Your task to perform on an android device: Open Yahoo.com Image 0: 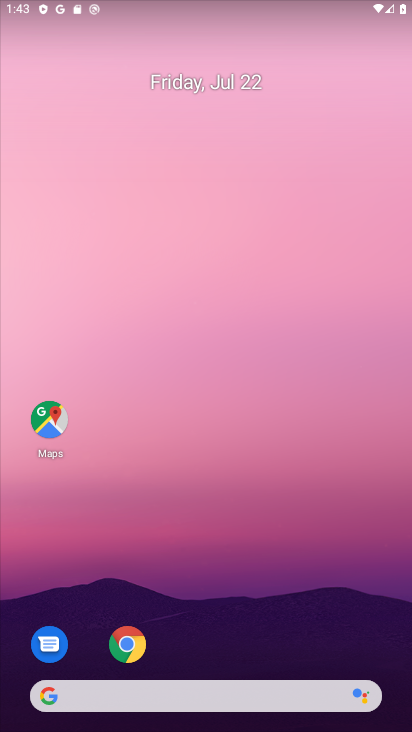
Step 0: click (116, 634)
Your task to perform on an android device: Open Yahoo.com Image 1: 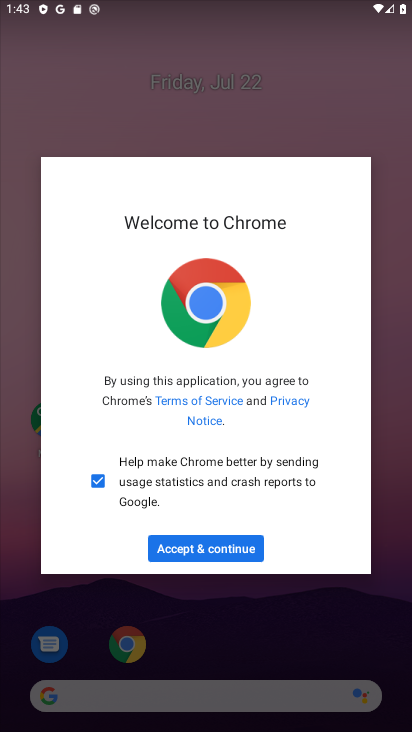
Step 1: click (206, 545)
Your task to perform on an android device: Open Yahoo.com Image 2: 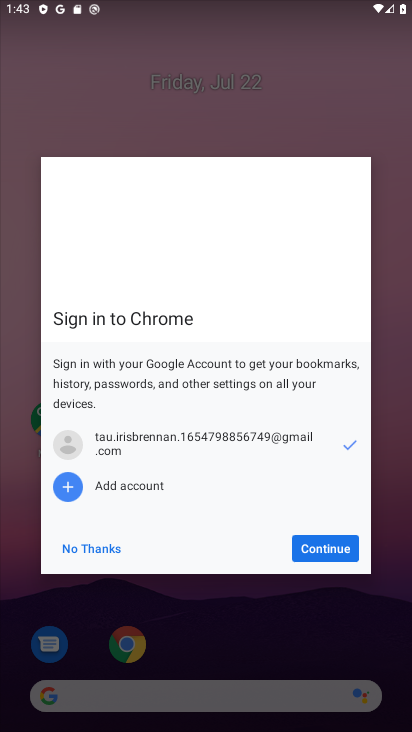
Step 2: click (345, 548)
Your task to perform on an android device: Open Yahoo.com Image 3: 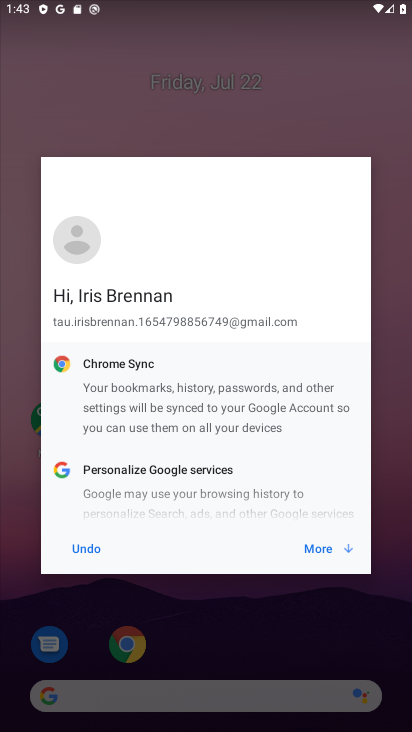
Step 3: click (345, 548)
Your task to perform on an android device: Open Yahoo.com Image 4: 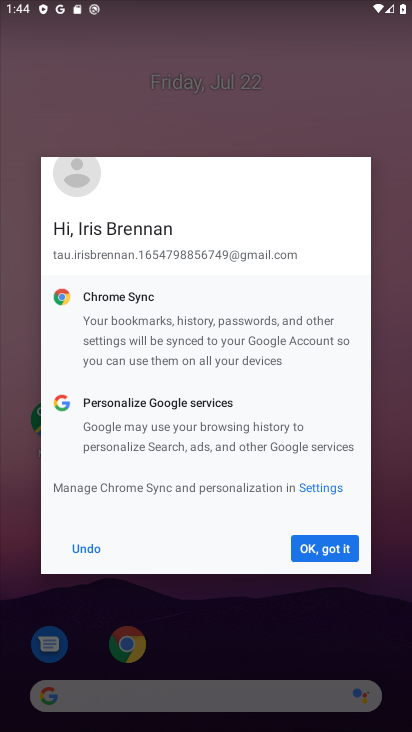
Step 4: click (345, 548)
Your task to perform on an android device: Open Yahoo.com Image 5: 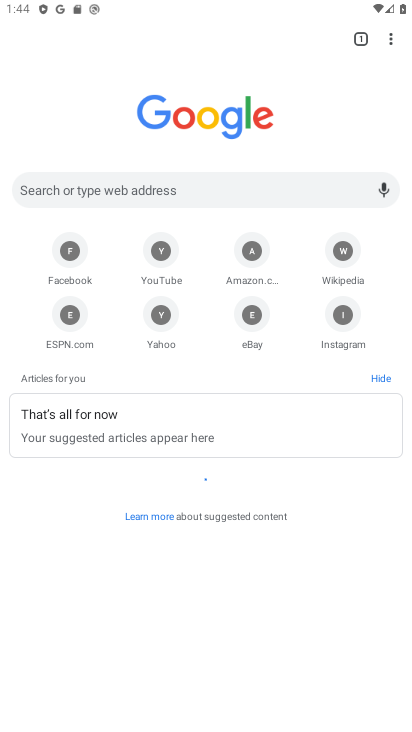
Step 5: click (160, 307)
Your task to perform on an android device: Open Yahoo.com Image 6: 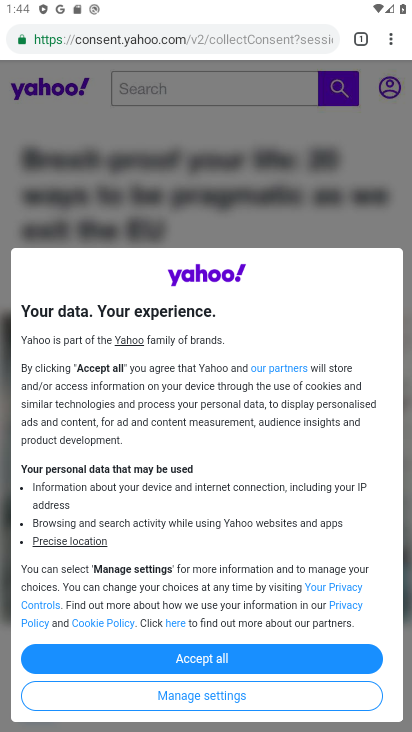
Step 6: click (212, 665)
Your task to perform on an android device: Open Yahoo.com Image 7: 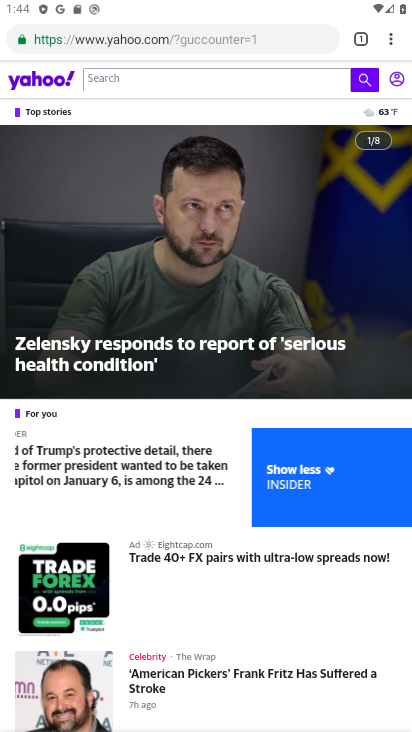
Step 7: task complete